Your task to perform on an android device: Do I have any events this weekend? Image 0: 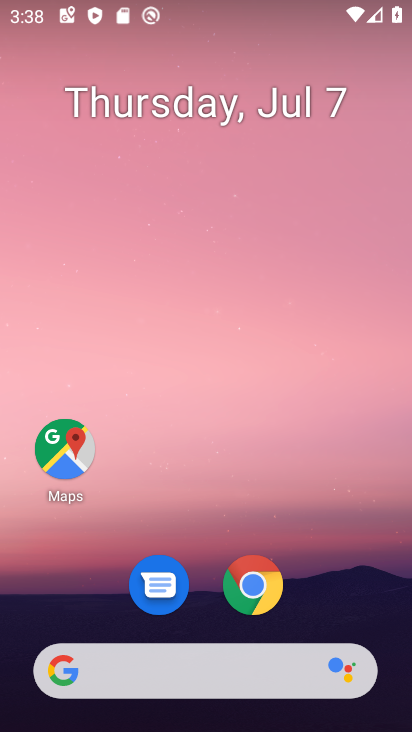
Step 0: drag from (273, 507) to (237, 40)
Your task to perform on an android device: Do I have any events this weekend? Image 1: 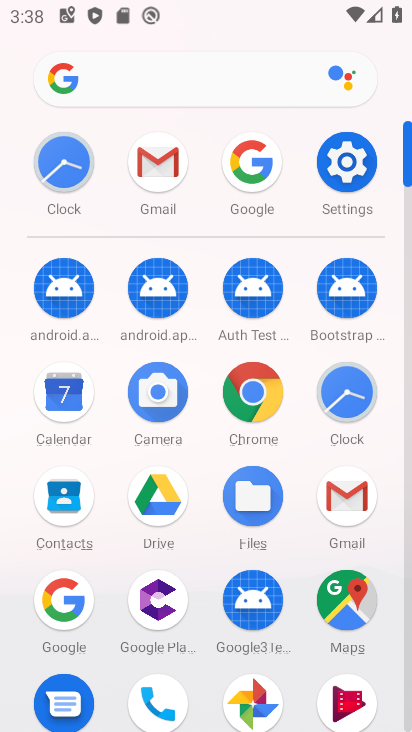
Step 1: click (63, 394)
Your task to perform on an android device: Do I have any events this weekend? Image 2: 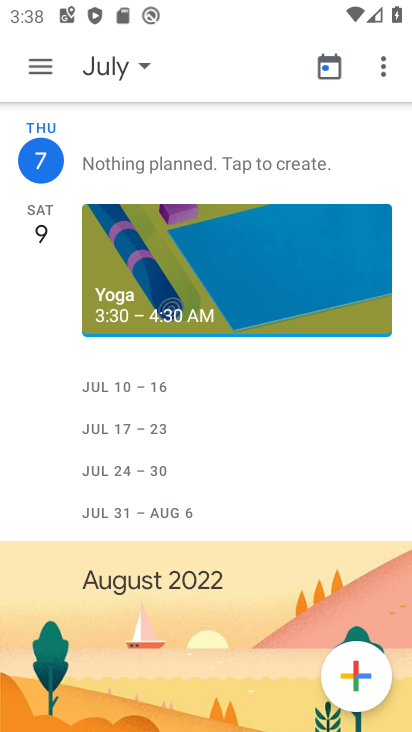
Step 2: click (162, 291)
Your task to perform on an android device: Do I have any events this weekend? Image 3: 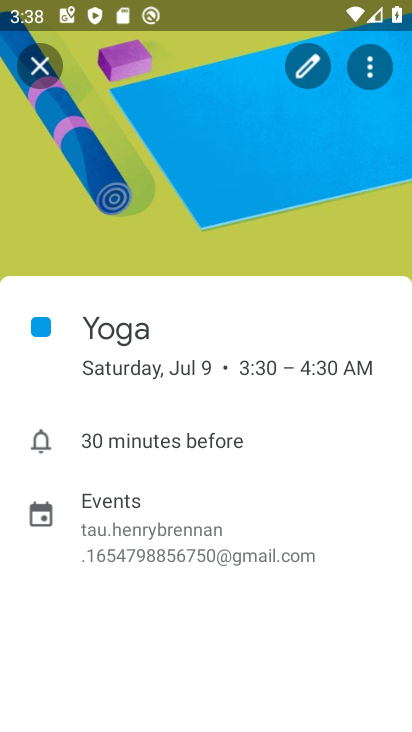
Step 3: task complete